Your task to perform on an android device: change notifications settings Image 0: 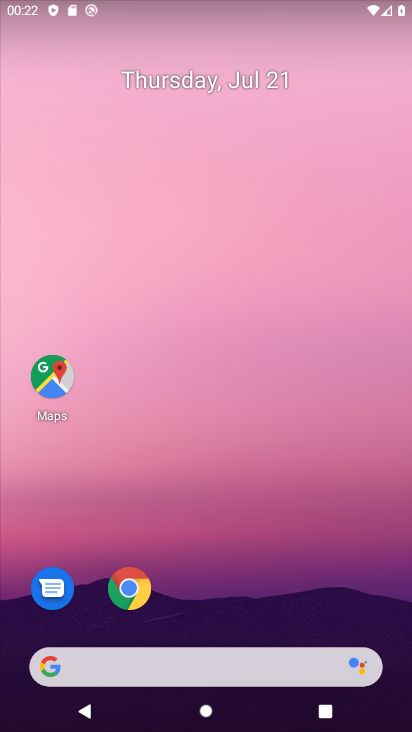
Step 0: click (345, 608)
Your task to perform on an android device: change notifications settings Image 1: 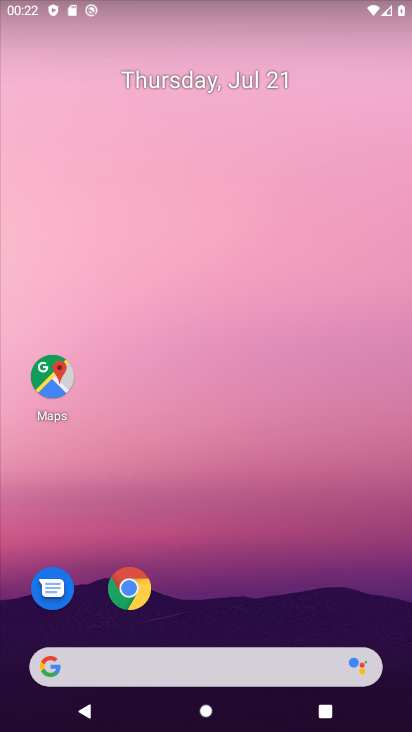
Step 1: drag from (345, 608) to (320, 147)
Your task to perform on an android device: change notifications settings Image 2: 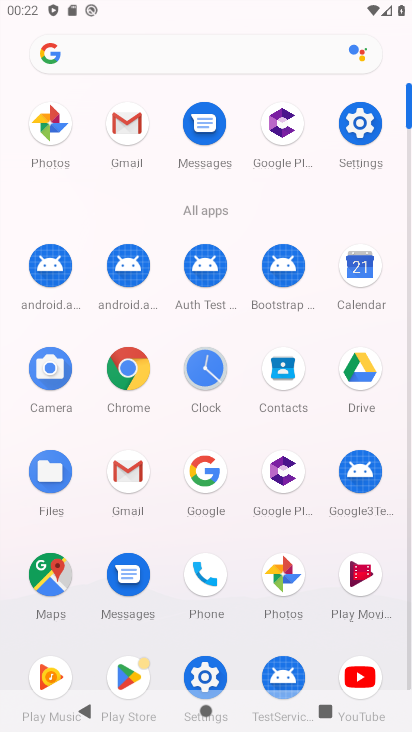
Step 2: click (207, 671)
Your task to perform on an android device: change notifications settings Image 3: 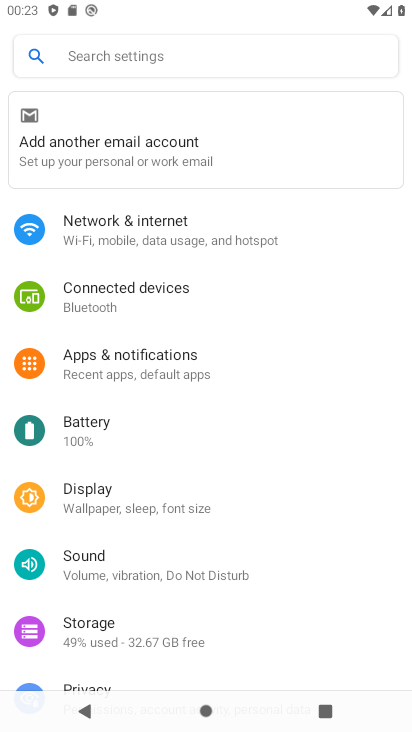
Step 3: drag from (202, 602) to (131, 364)
Your task to perform on an android device: change notifications settings Image 4: 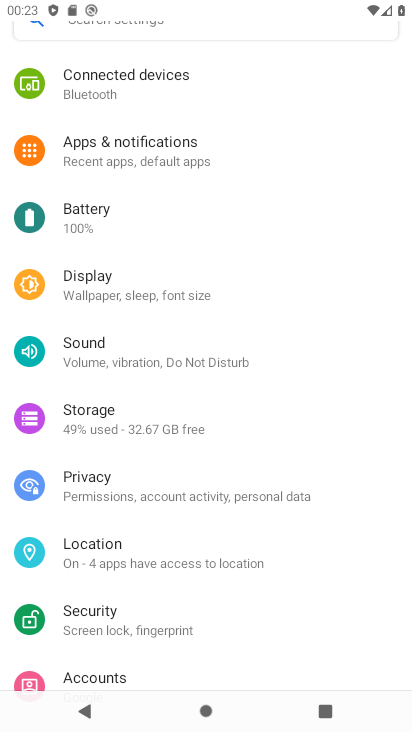
Step 4: click (122, 145)
Your task to perform on an android device: change notifications settings Image 5: 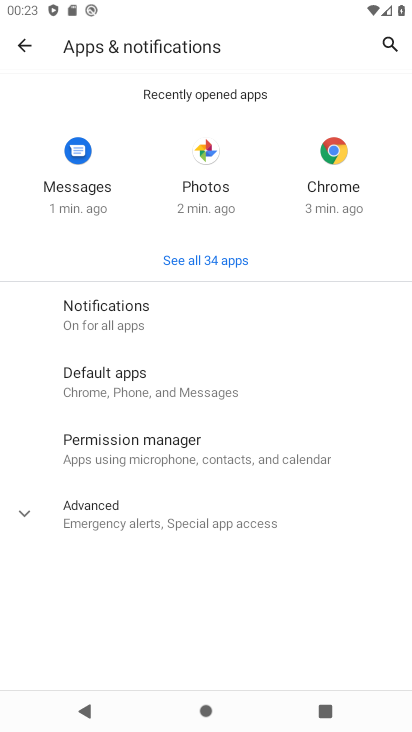
Step 5: click (106, 300)
Your task to perform on an android device: change notifications settings Image 6: 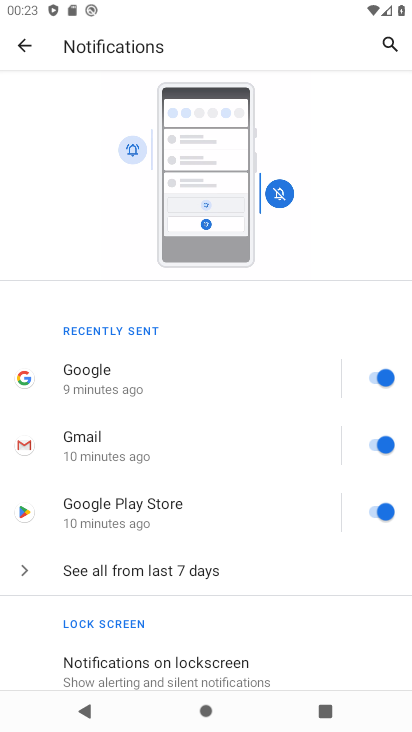
Step 6: drag from (291, 616) to (217, 291)
Your task to perform on an android device: change notifications settings Image 7: 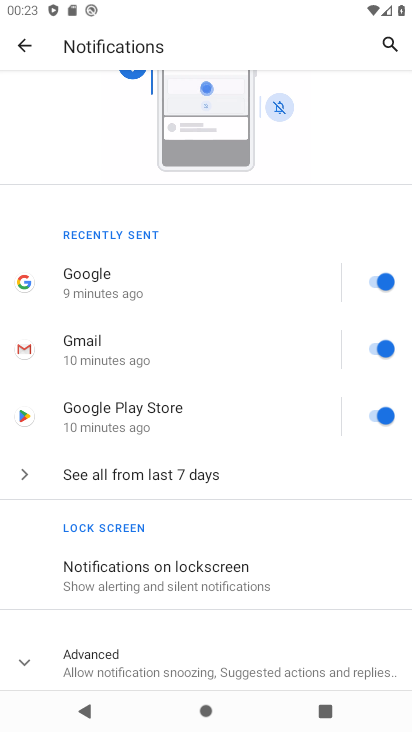
Step 7: click (284, 660)
Your task to perform on an android device: change notifications settings Image 8: 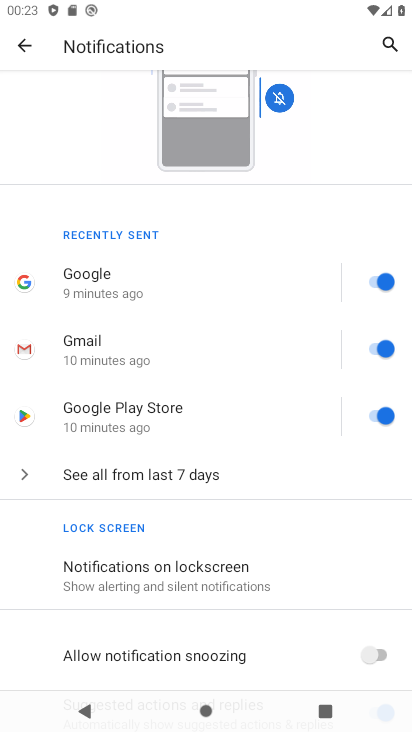
Step 8: drag from (258, 638) to (220, 513)
Your task to perform on an android device: change notifications settings Image 9: 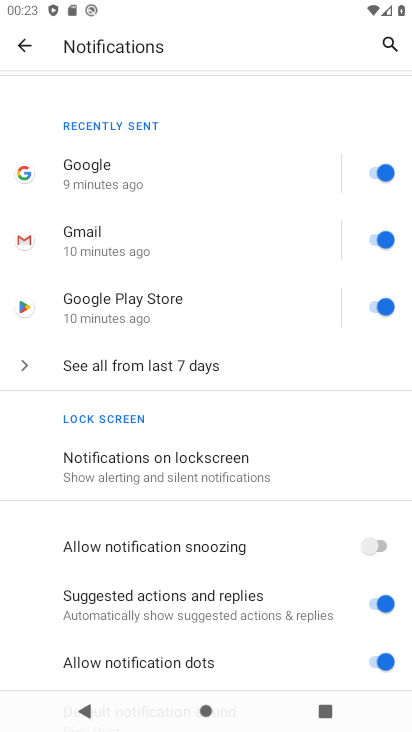
Step 9: click (385, 606)
Your task to perform on an android device: change notifications settings Image 10: 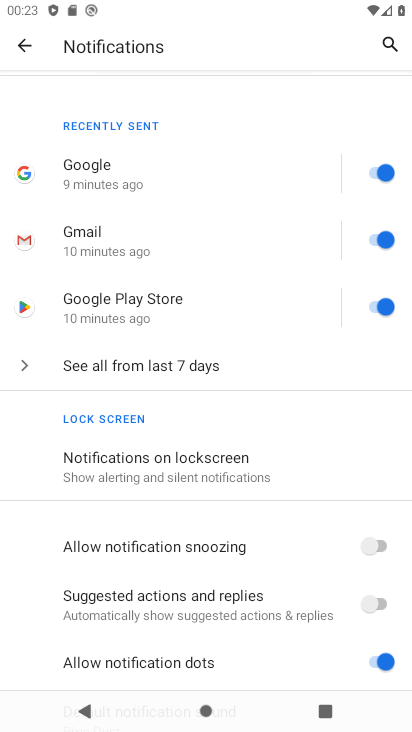
Step 10: click (373, 549)
Your task to perform on an android device: change notifications settings Image 11: 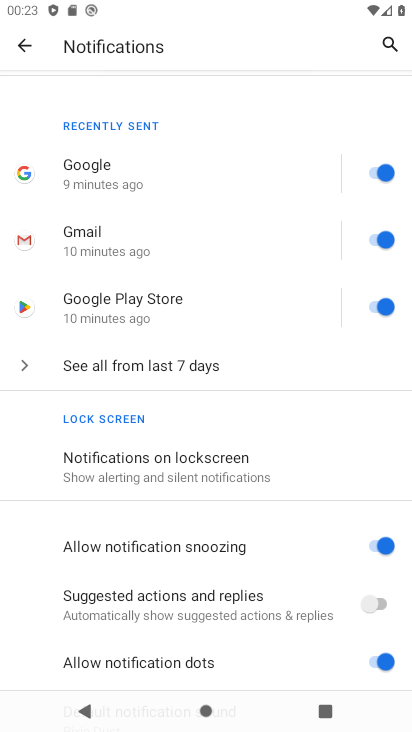
Step 11: click (388, 667)
Your task to perform on an android device: change notifications settings Image 12: 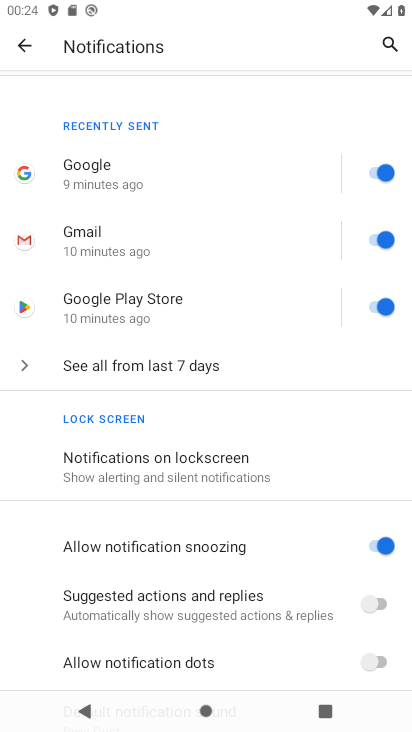
Step 12: task complete